Your task to perform on an android device: turn off data saver in the chrome app Image 0: 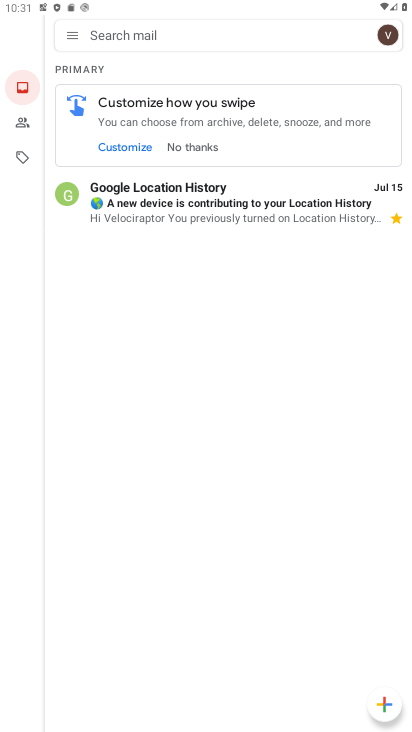
Step 0: press home button
Your task to perform on an android device: turn off data saver in the chrome app Image 1: 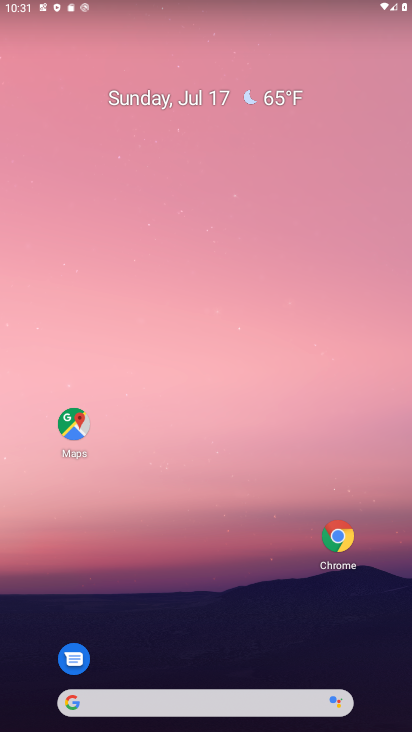
Step 1: drag from (191, 698) to (194, 173)
Your task to perform on an android device: turn off data saver in the chrome app Image 2: 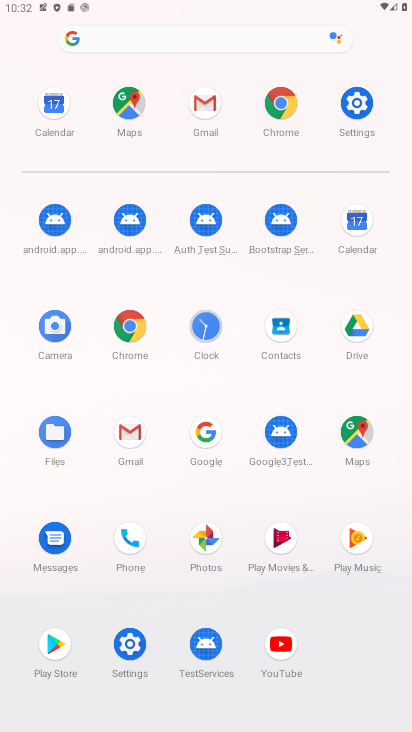
Step 2: click (135, 328)
Your task to perform on an android device: turn off data saver in the chrome app Image 3: 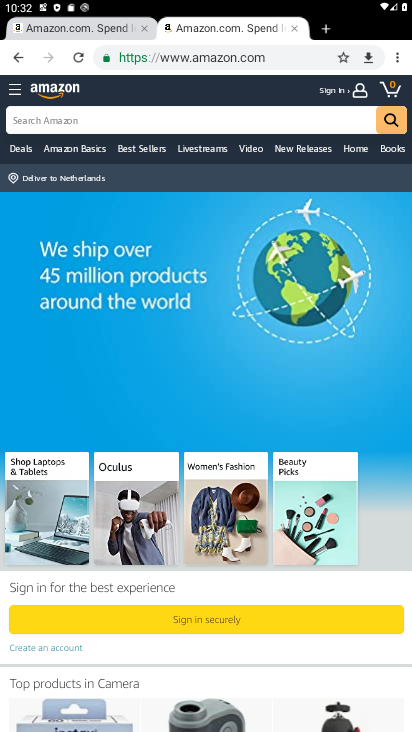
Step 3: drag from (398, 58) to (302, 426)
Your task to perform on an android device: turn off data saver in the chrome app Image 4: 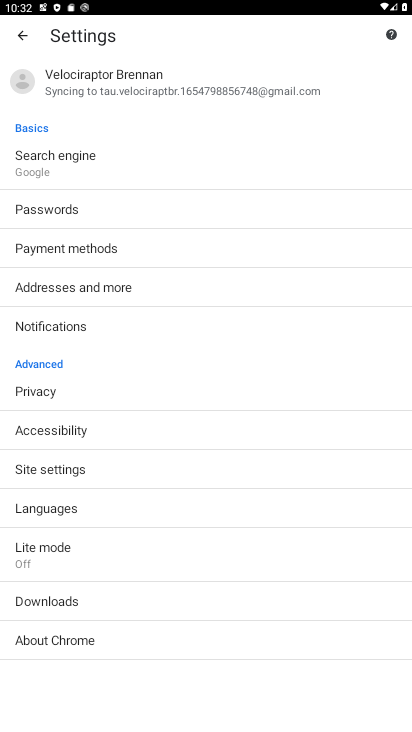
Step 4: click (51, 557)
Your task to perform on an android device: turn off data saver in the chrome app Image 5: 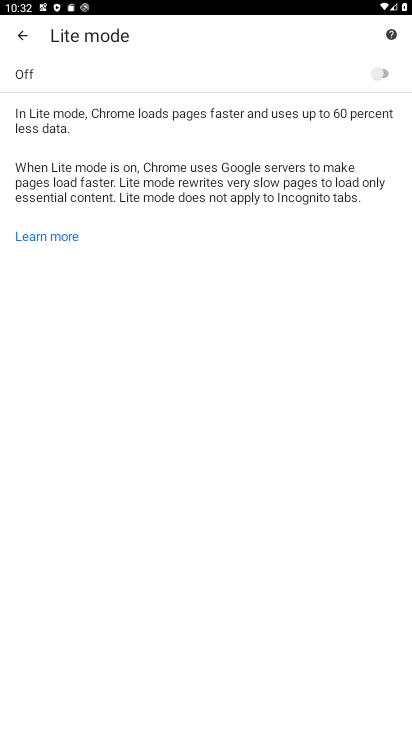
Step 5: task complete